Your task to perform on an android device: see tabs open on other devices in the chrome app Image 0: 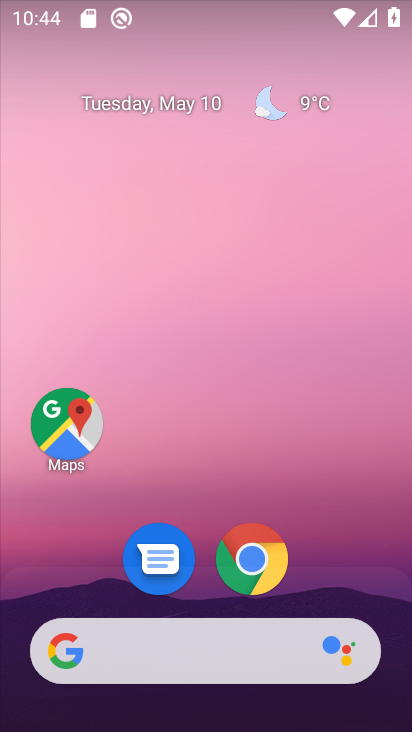
Step 0: drag from (341, 552) to (270, 76)
Your task to perform on an android device: see tabs open on other devices in the chrome app Image 1: 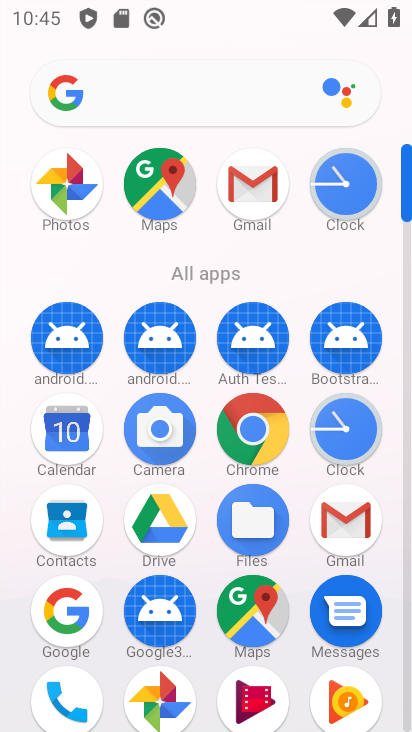
Step 1: click (254, 422)
Your task to perform on an android device: see tabs open on other devices in the chrome app Image 2: 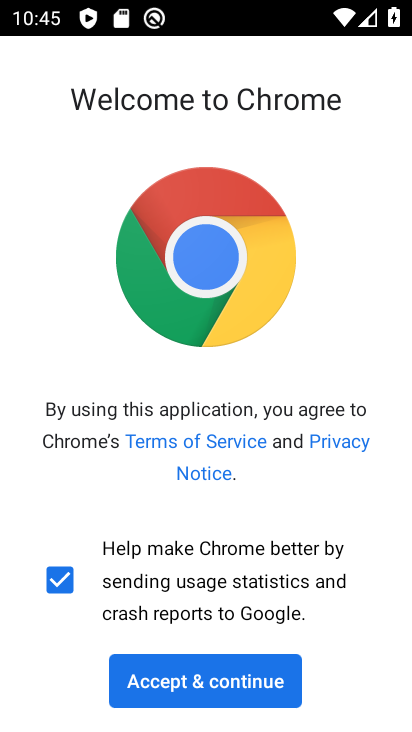
Step 2: click (240, 674)
Your task to perform on an android device: see tabs open on other devices in the chrome app Image 3: 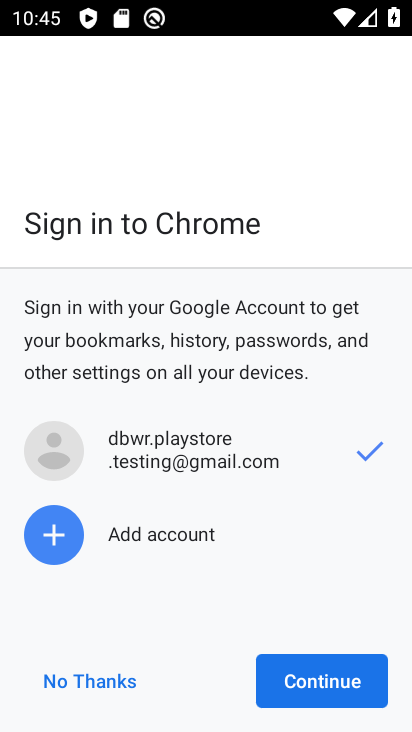
Step 3: click (262, 682)
Your task to perform on an android device: see tabs open on other devices in the chrome app Image 4: 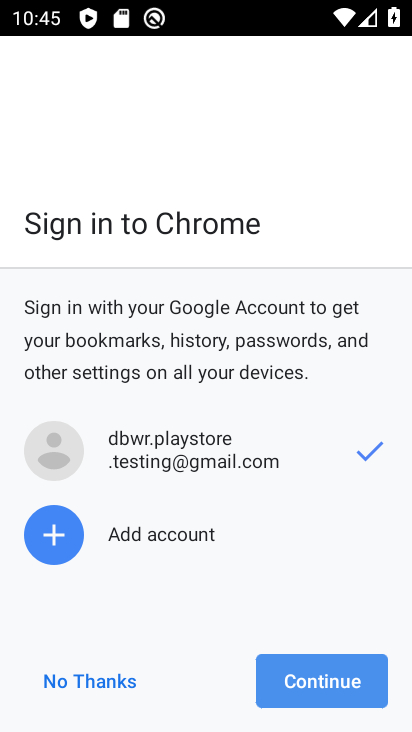
Step 4: click (262, 682)
Your task to perform on an android device: see tabs open on other devices in the chrome app Image 5: 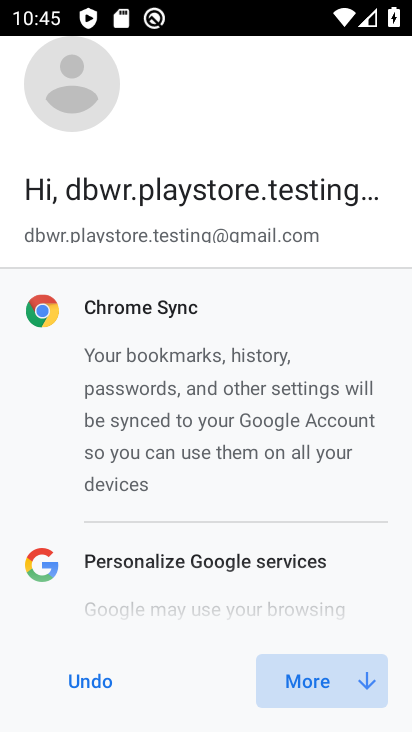
Step 5: click (262, 682)
Your task to perform on an android device: see tabs open on other devices in the chrome app Image 6: 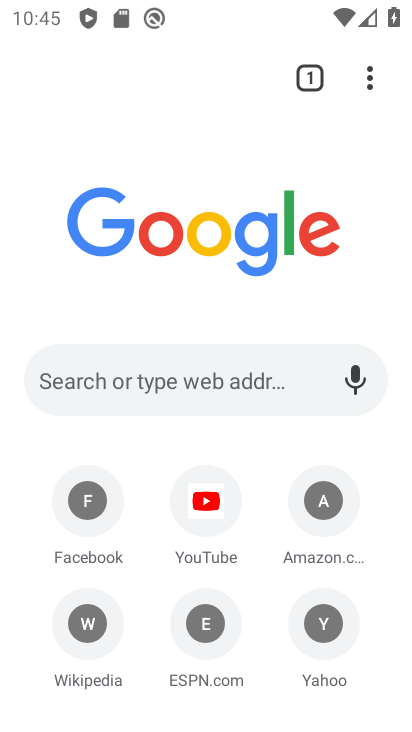
Step 6: task complete